Your task to perform on an android device: toggle javascript in the chrome app Image 0: 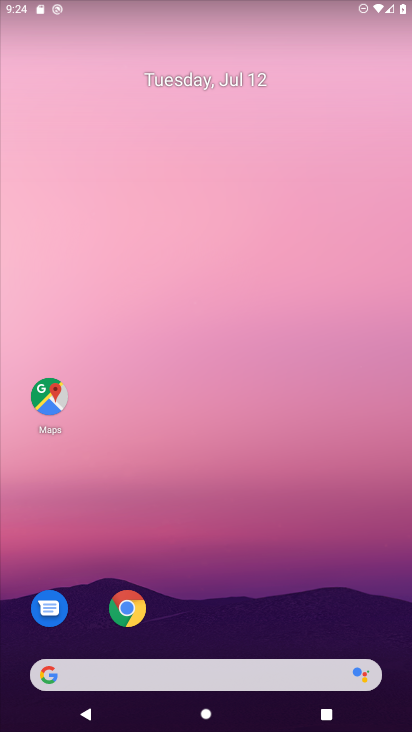
Step 0: click (128, 598)
Your task to perform on an android device: toggle javascript in the chrome app Image 1: 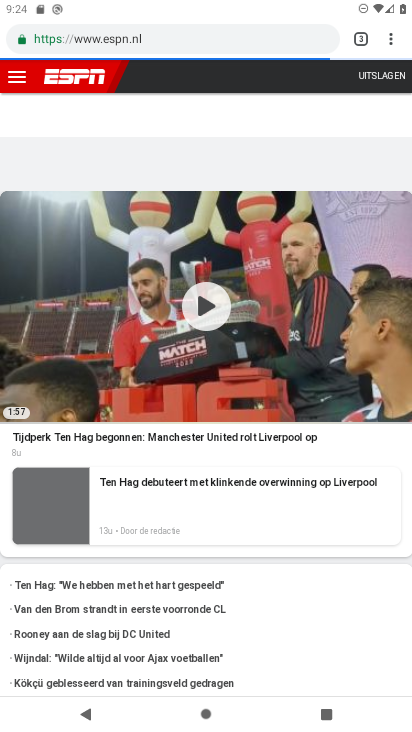
Step 1: click (403, 48)
Your task to perform on an android device: toggle javascript in the chrome app Image 2: 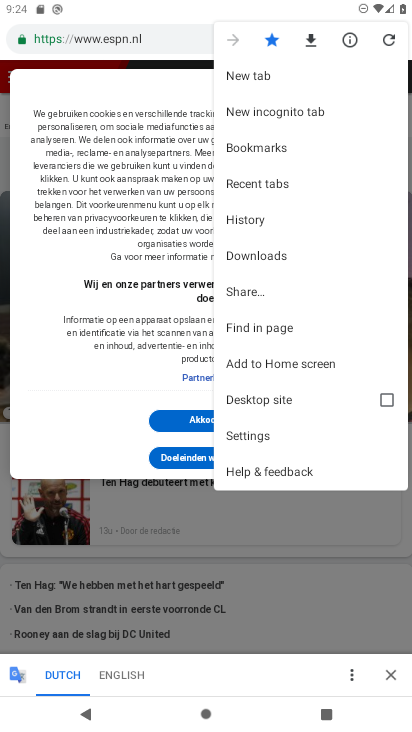
Step 2: click (272, 430)
Your task to perform on an android device: toggle javascript in the chrome app Image 3: 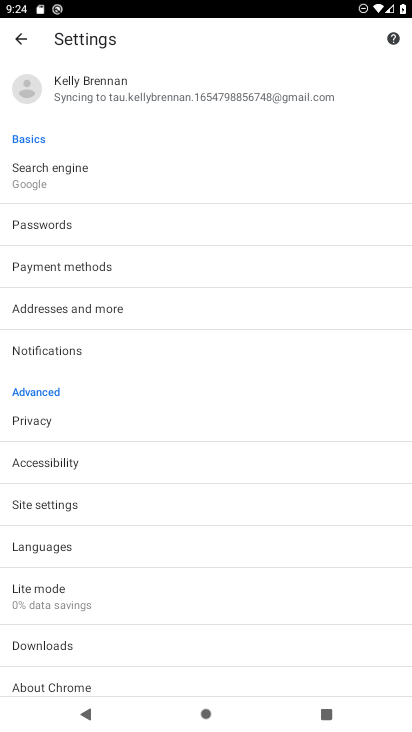
Step 3: click (101, 510)
Your task to perform on an android device: toggle javascript in the chrome app Image 4: 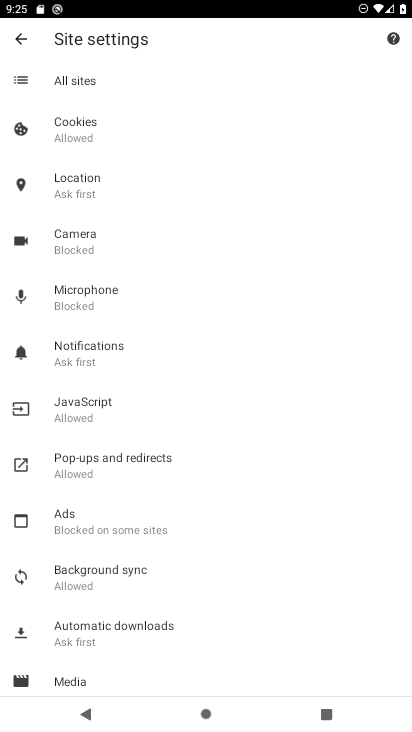
Step 4: click (75, 399)
Your task to perform on an android device: toggle javascript in the chrome app Image 5: 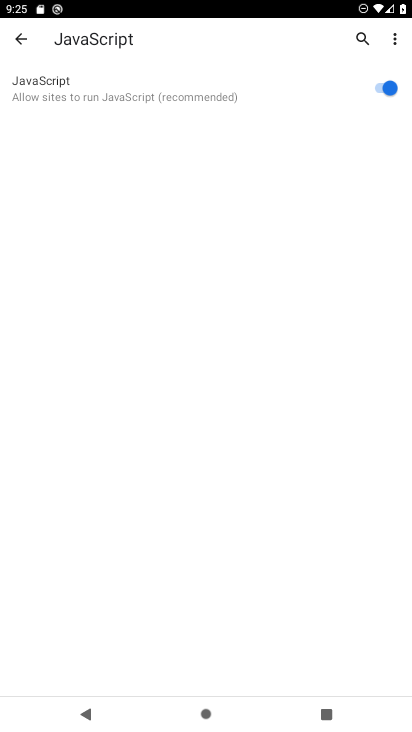
Step 5: click (387, 93)
Your task to perform on an android device: toggle javascript in the chrome app Image 6: 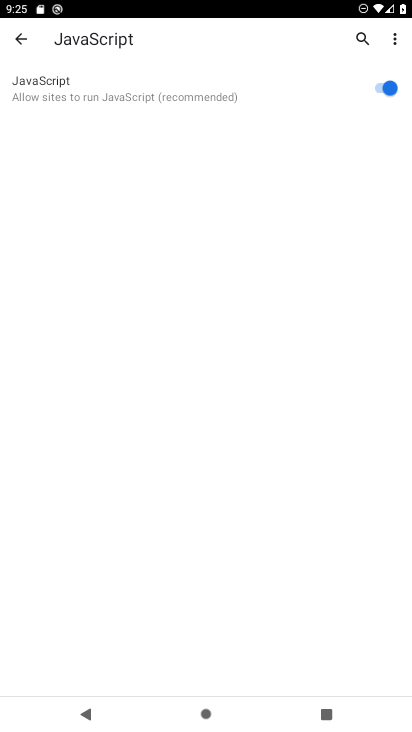
Step 6: click (387, 93)
Your task to perform on an android device: toggle javascript in the chrome app Image 7: 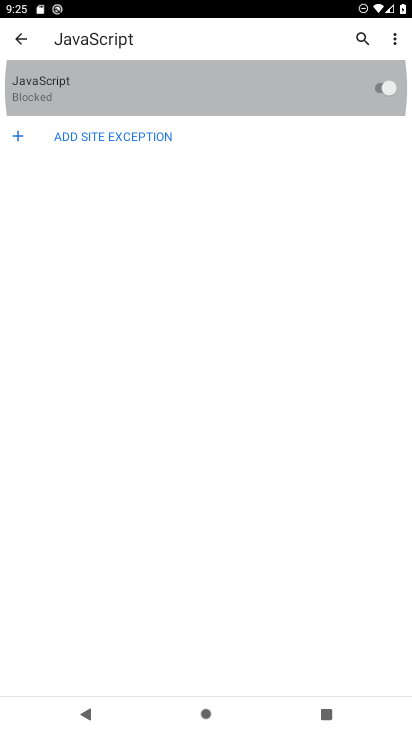
Step 7: click (387, 93)
Your task to perform on an android device: toggle javascript in the chrome app Image 8: 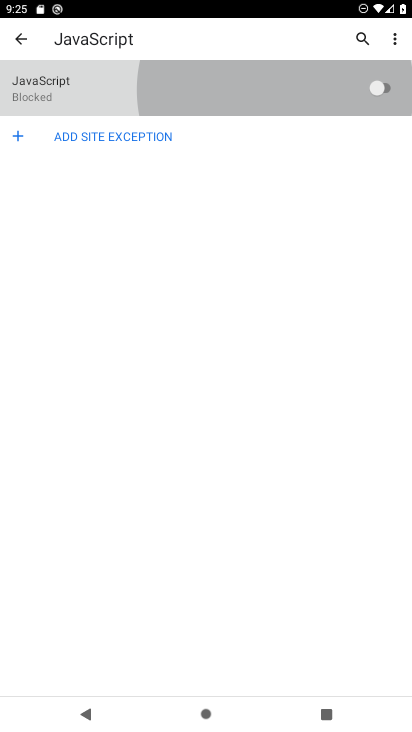
Step 8: click (387, 93)
Your task to perform on an android device: toggle javascript in the chrome app Image 9: 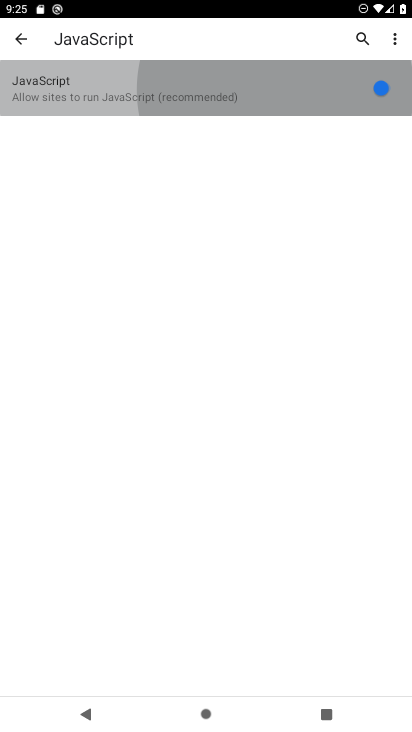
Step 9: click (387, 93)
Your task to perform on an android device: toggle javascript in the chrome app Image 10: 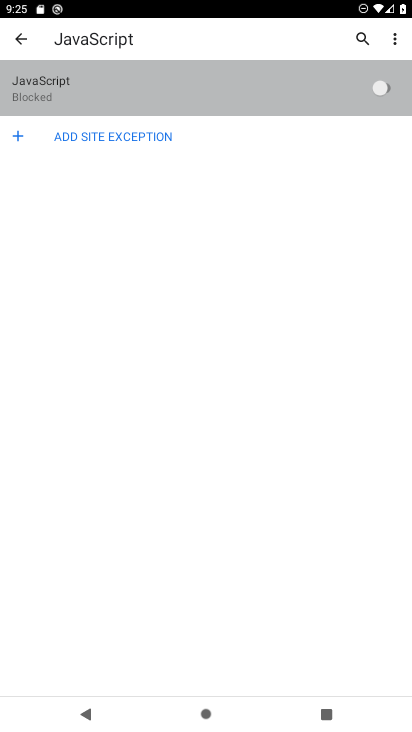
Step 10: click (387, 93)
Your task to perform on an android device: toggle javascript in the chrome app Image 11: 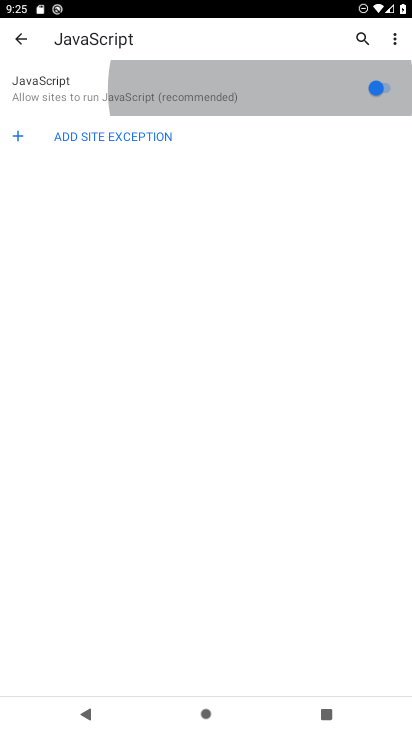
Step 11: click (387, 93)
Your task to perform on an android device: toggle javascript in the chrome app Image 12: 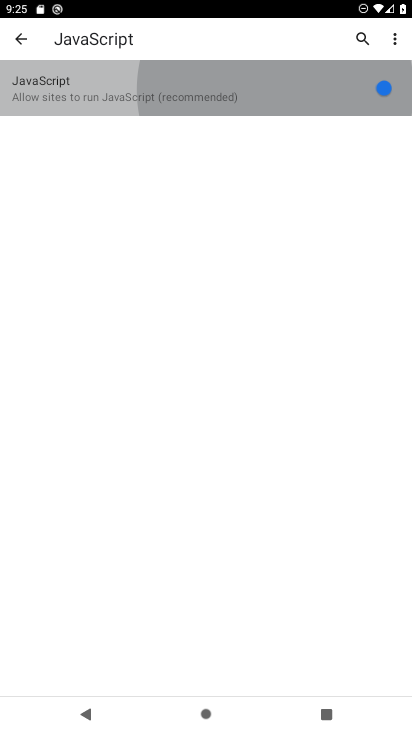
Step 12: click (387, 93)
Your task to perform on an android device: toggle javascript in the chrome app Image 13: 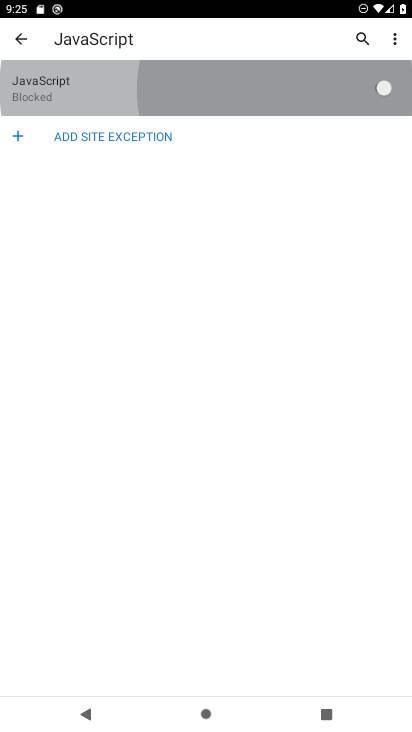
Step 13: click (387, 93)
Your task to perform on an android device: toggle javascript in the chrome app Image 14: 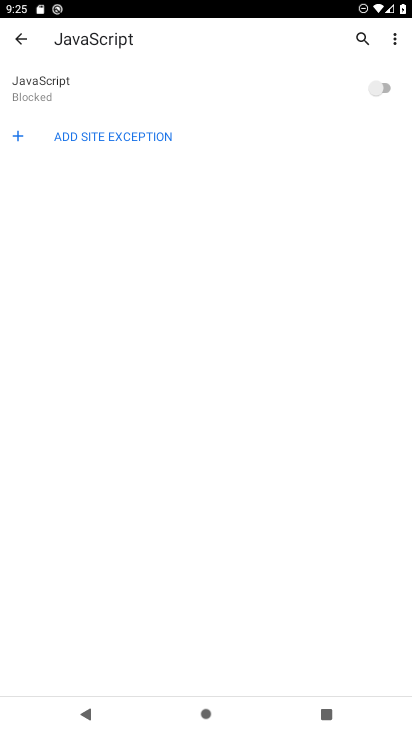
Step 14: task complete